Your task to perform on an android device: When is my next meeting? Image 0: 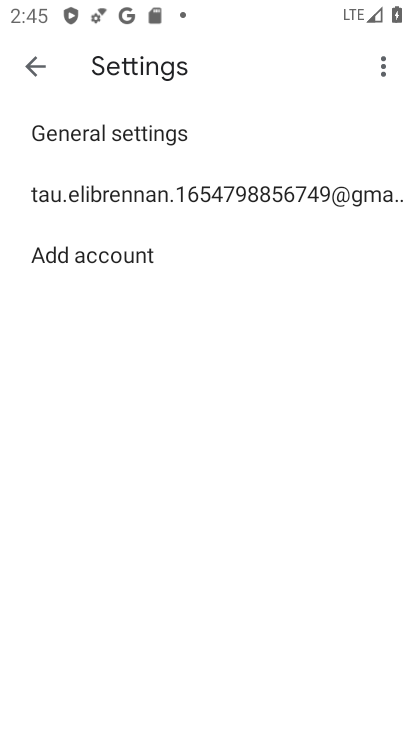
Step 0: press home button
Your task to perform on an android device: When is my next meeting? Image 1: 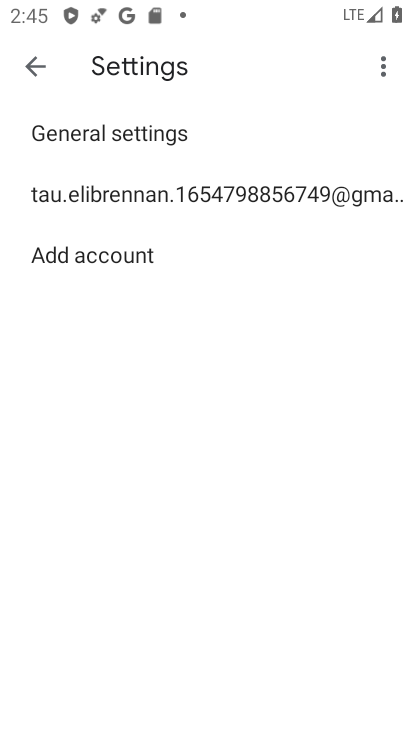
Step 1: press home button
Your task to perform on an android device: When is my next meeting? Image 2: 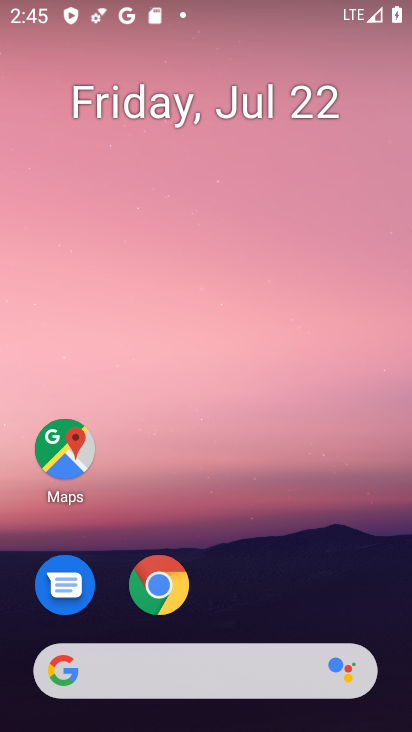
Step 2: drag from (301, 568) to (328, 89)
Your task to perform on an android device: When is my next meeting? Image 3: 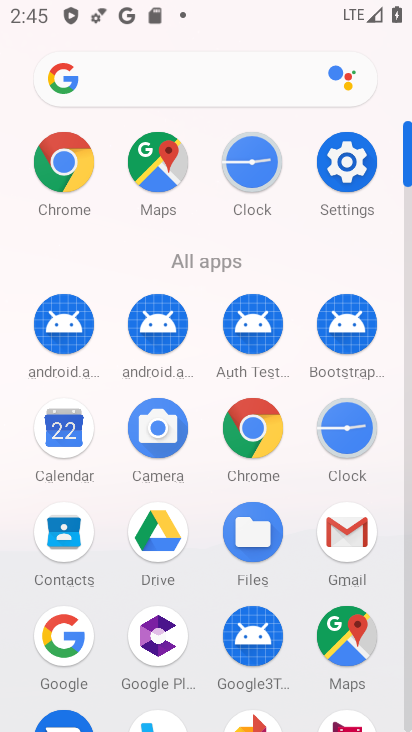
Step 3: click (64, 418)
Your task to perform on an android device: When is my next meeting? Image 4: 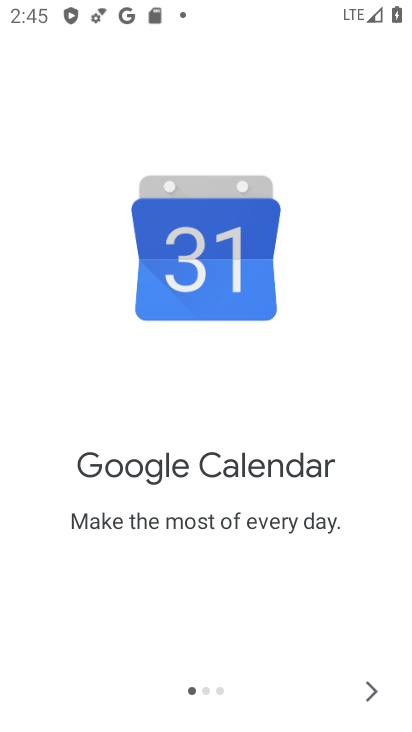
Step 4: click (367, 687)
Your task to perform on an android device: When is my next meeting? Image 5: 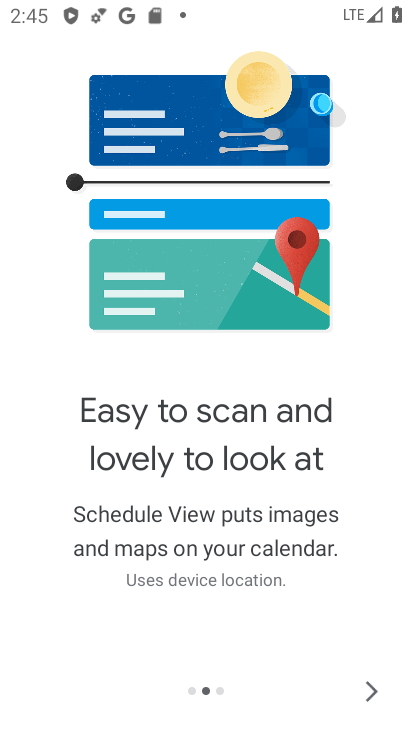
Step 5: click (368, 689)
Your task to perform on an android device: When is my next meeting? Image 6: 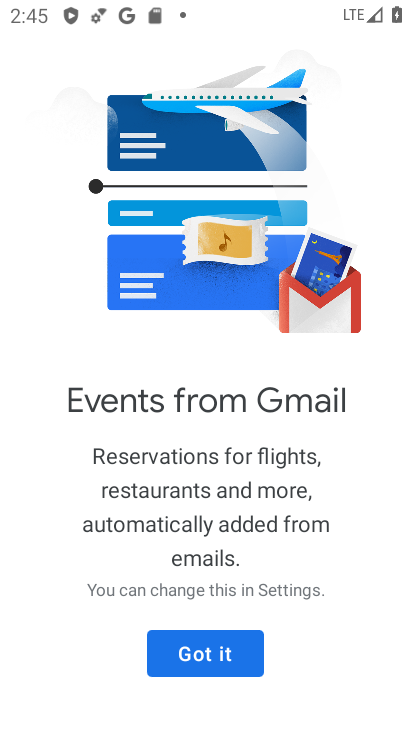
Step 6: click (247, 650)
Your task to perform on an android device: When is my next meeting? Image 7: 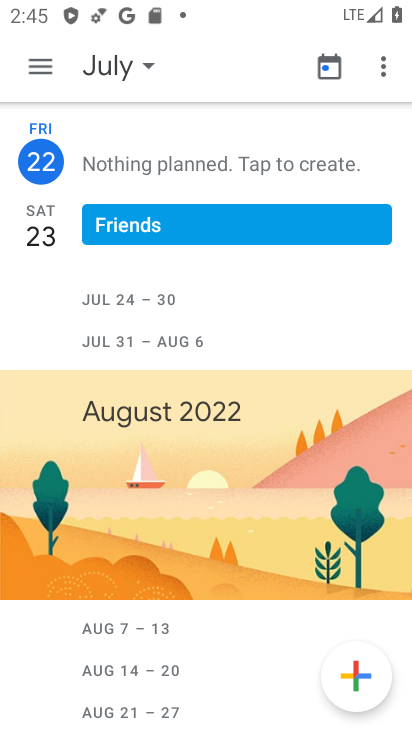
Step 7: task complete